Your task to perform on an android device: toggle priority inbox in the gmail app Image 0: 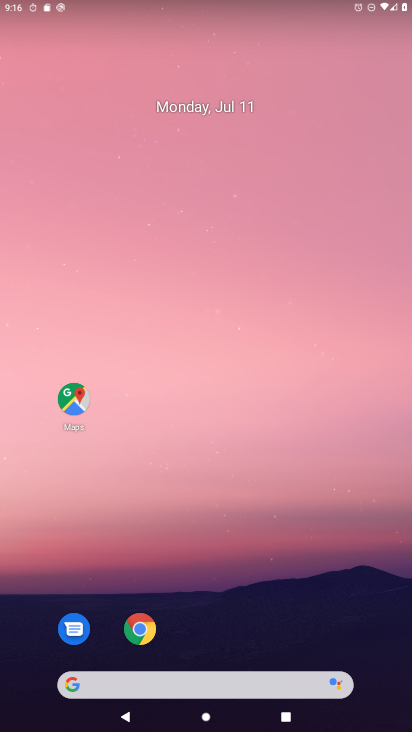
Step 0: drag from (206, 639) to (202, 83)
Your task to perform on an android device: toggle priority inbox in the gmail app Image 1: 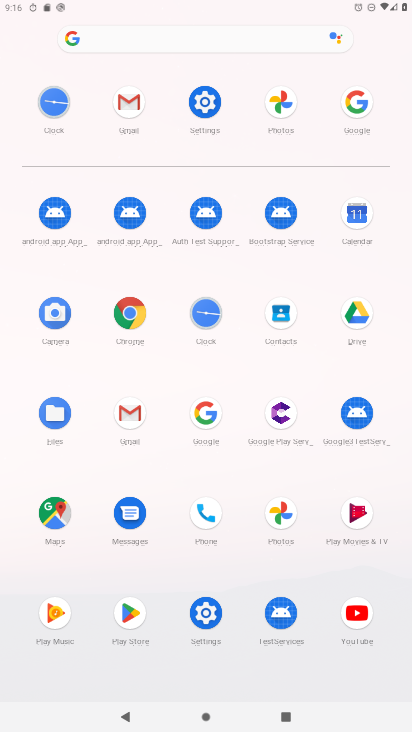
Step 1: click (134, 411)
Your task to perform on an android device: toggle priority inbox in the gmail app Image 2: 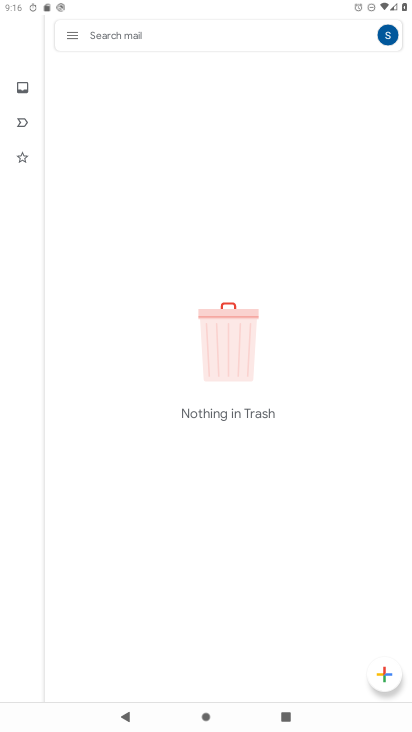
Step 2: click (73, 34)
Your task to perform on an android device: toggle priority inbox in the gmail app Image 3: 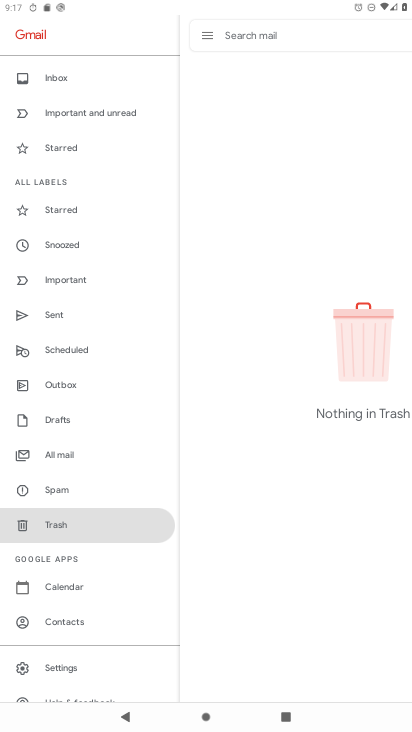
Step 3: click (62, 664)
Your task to perform on an android device: toggle priority inbox in the gmail app Image 4: 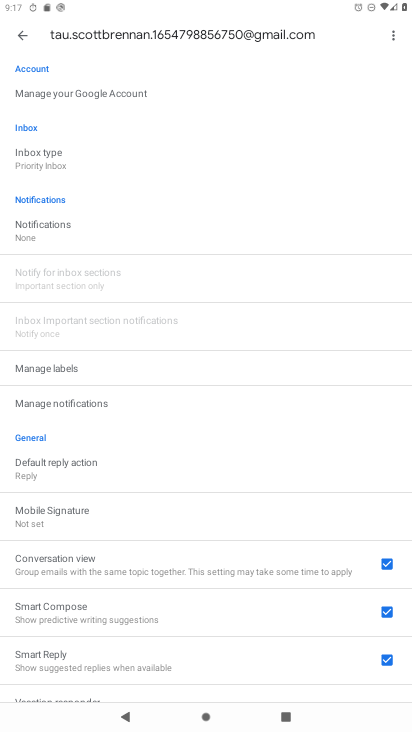
Step 4: click (67, 166)
Your task to perform on an android device: toggle priority inbox in the gmail app Image 5: 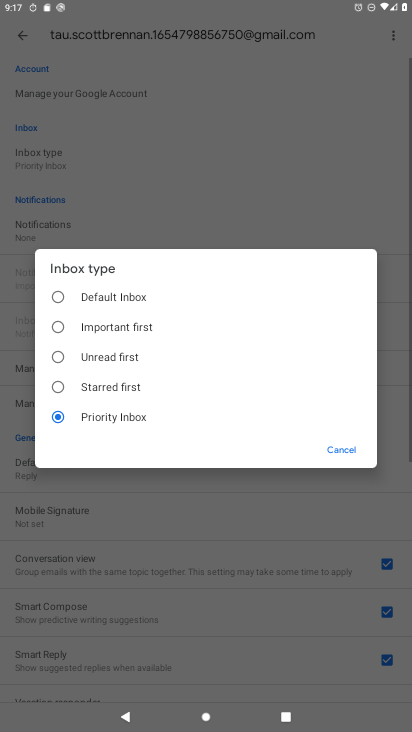
Step 5: click (55, 298)
Your task to perform on an android device: toggle priority inbox in the gmail app Image 6: 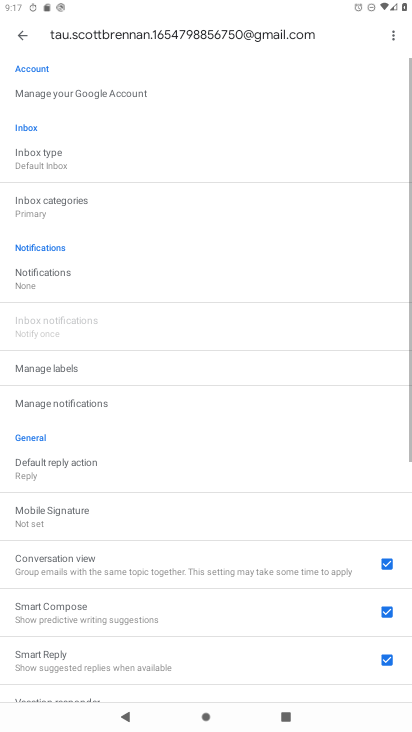
Step 6: task complete